Your task to perform on an android device: Go to privacy settings Image 0: 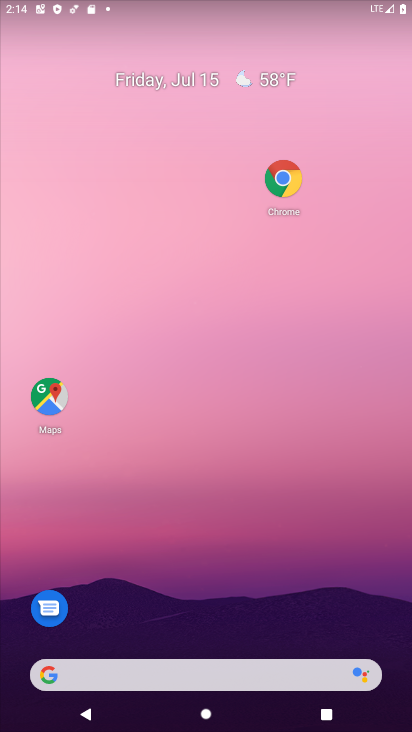
Step 0: drag from (188, 651) to (206, 34)
Your task to perform on an android device: Go to privacy settings Image 1: 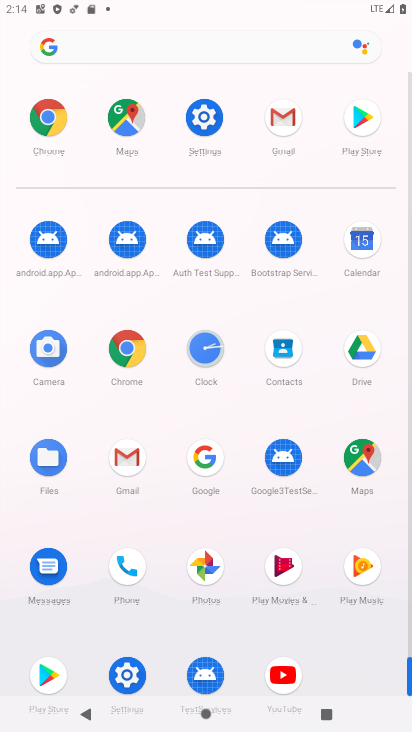
Step 1: click (134, 346)
Your task to perform on an android device: Go to privacy settings Image 2: 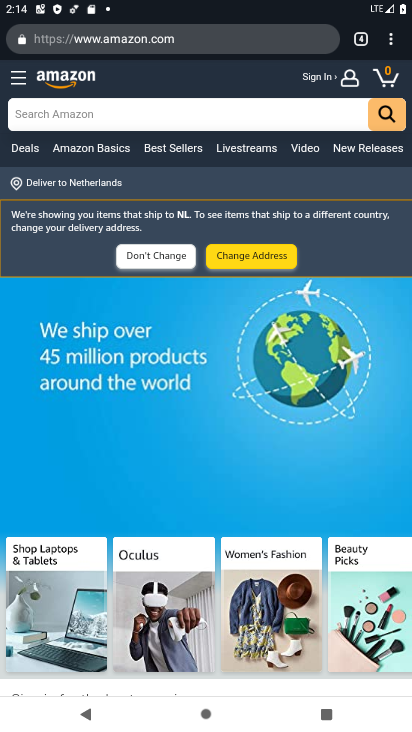
Step 2: press home button
Your task to perform on an android device: Go to privacy settings Image 3: 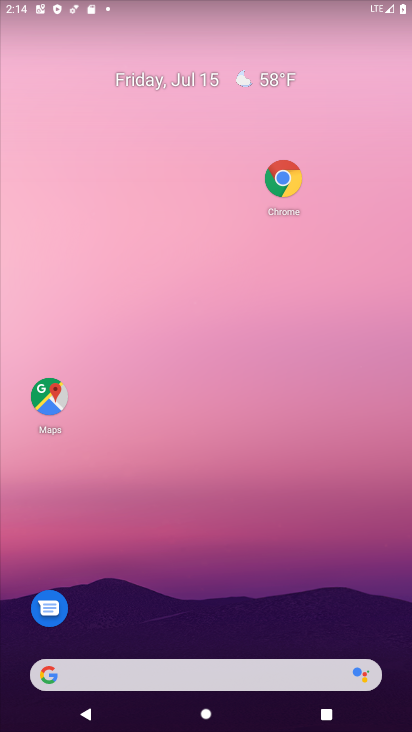
Step 3: click (278, 174)
Your task to perform on an android device: Go to privacy settings Image 4: 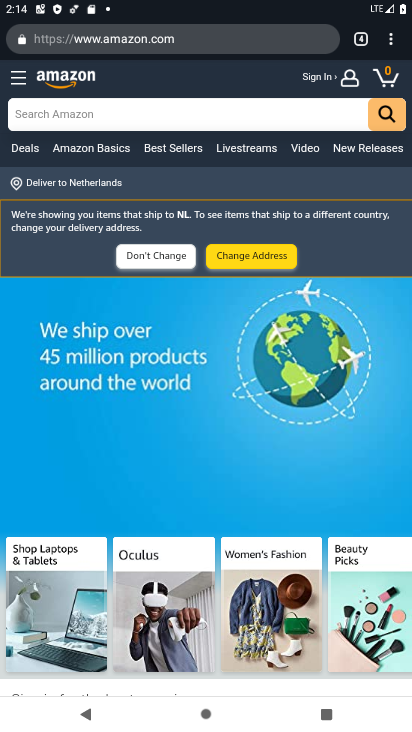
Step 4: drag from (385, 47) to (256, 472)
Your task to perform on an android device: Go to privacy settings Image 5: 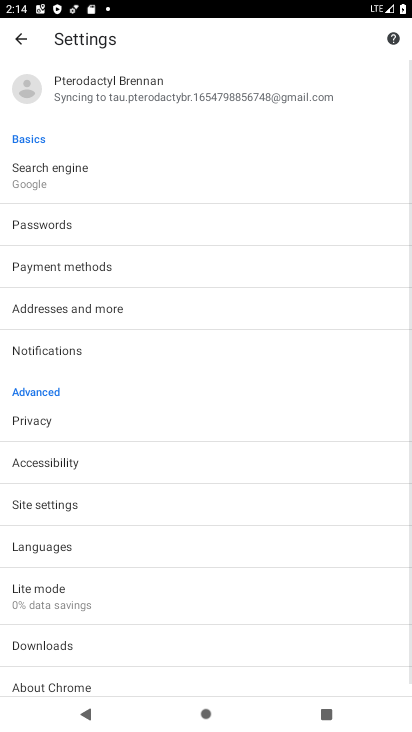
Step 5: click (46, 419)
Your task to perform on an android device: Go to privacy settings Image 6: 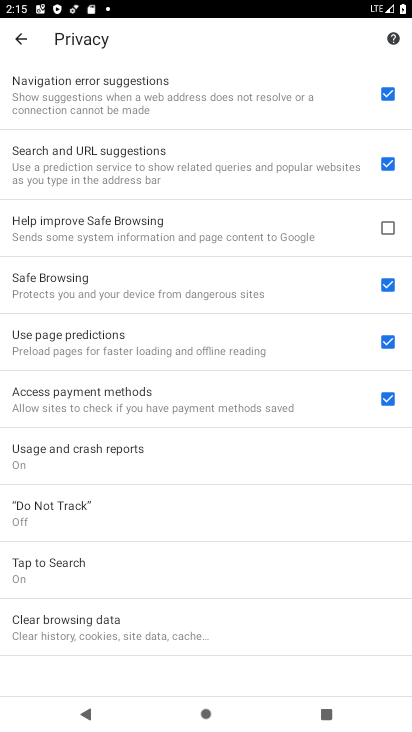
Step 6: task complete